Your task to perform on an android device: Open battery settings Image 0: 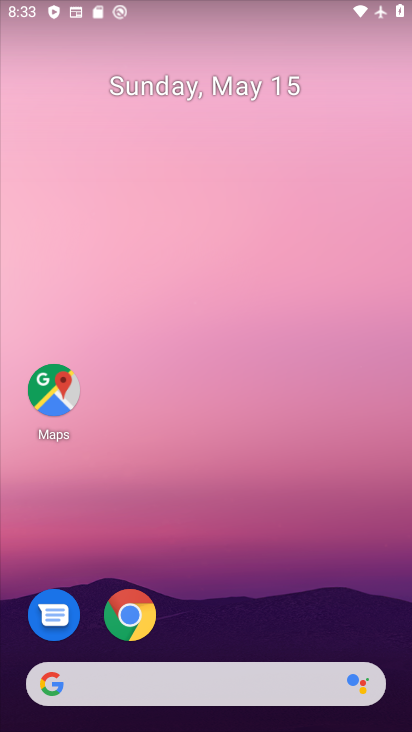
Step 0: drag from (180, 624) to (178, 420)
Your task to perform on an android device: Open battery settings Image 1: 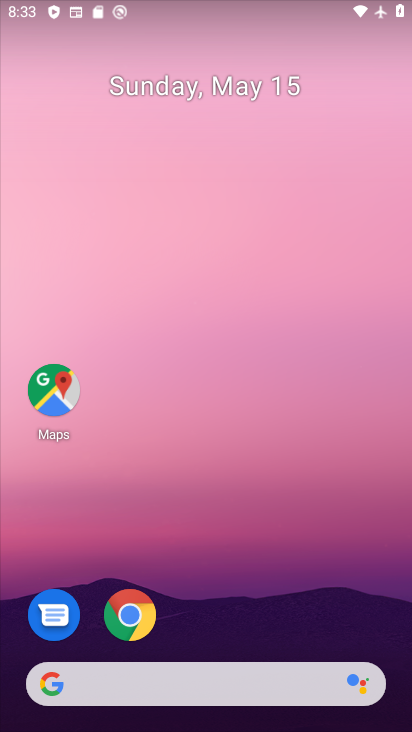
Step 1: drag from (225, 597) to (227, 242)
Your task to perform on an android device: Open battery settings Image 2: 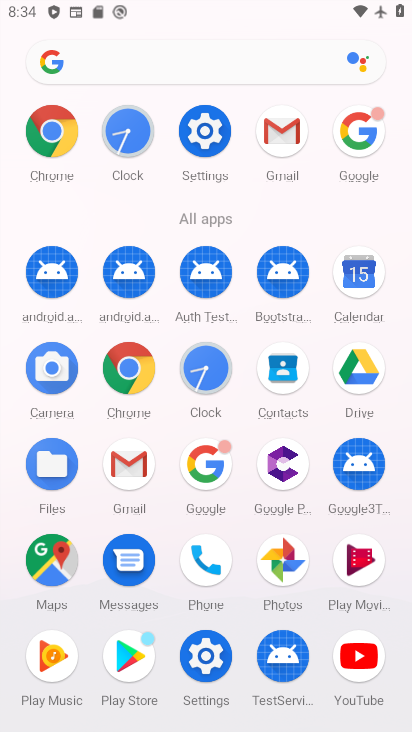
Step 2: click (208, 666)
Your task to perform on an android device: Open battery settings Image 3: 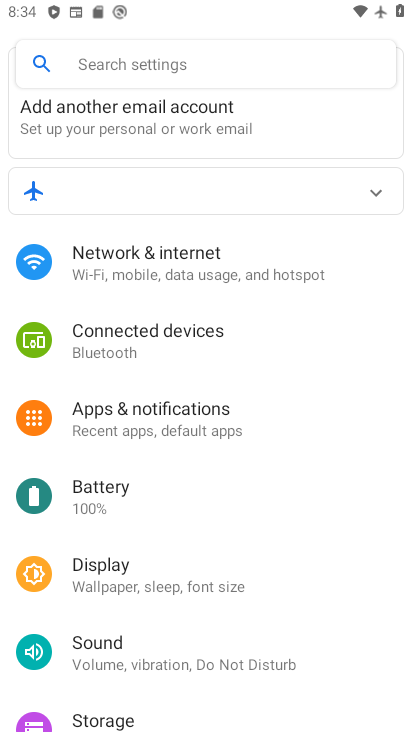
Step 3: drag from (110, 676) to (140, 357)
Your task to perform on an android device: Open battery settings Image 4: 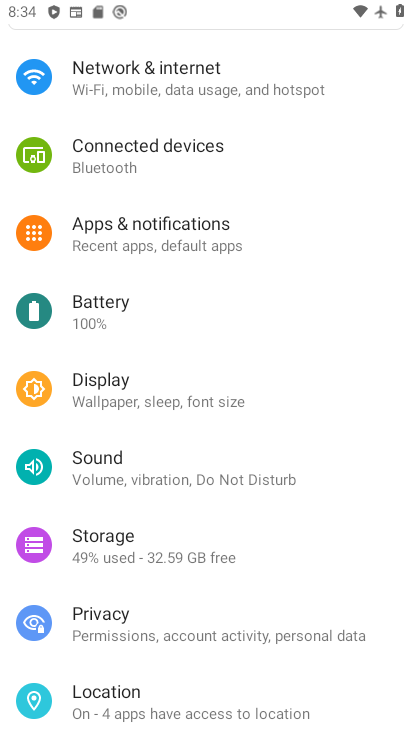
Step 4: click (115, 316)
Your task to perform on an android device: Open battery settings Image 5: 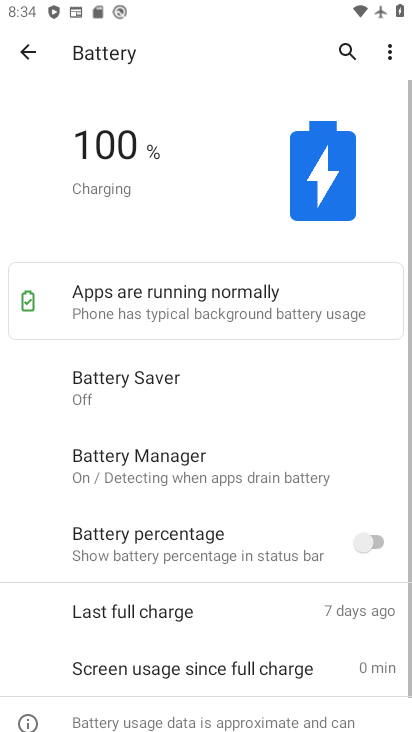
Step 5: drag from (136, 644) to (148, 417)
Your task to perform on an android device: Open battery settings Image 6: 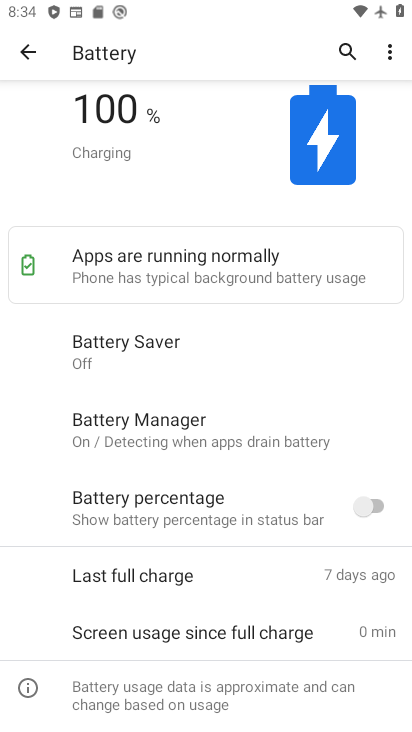
Step 6: click (394, 51)
Your task to perform on an android device: Open battery settings Image 7: 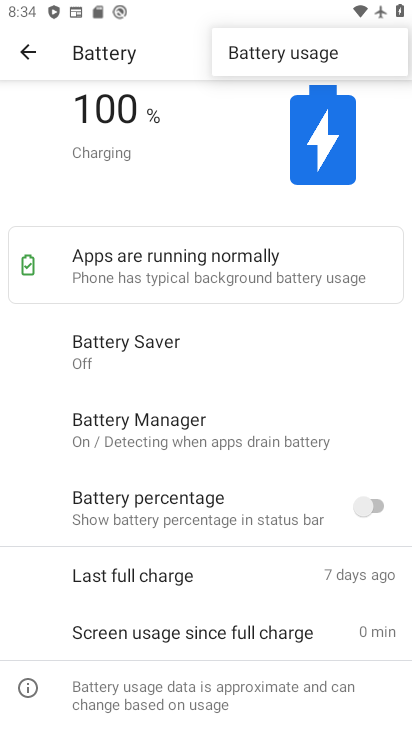
Step 7: click (243, 47)
Your task to perform on an android device: Open battery settings Image 8: 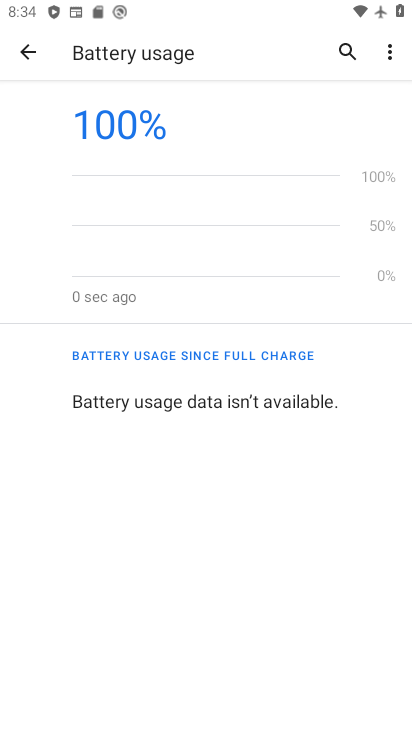
Step 8: task complete